Your task to perform on an android device: allow cookies in the chrome app Image 0: 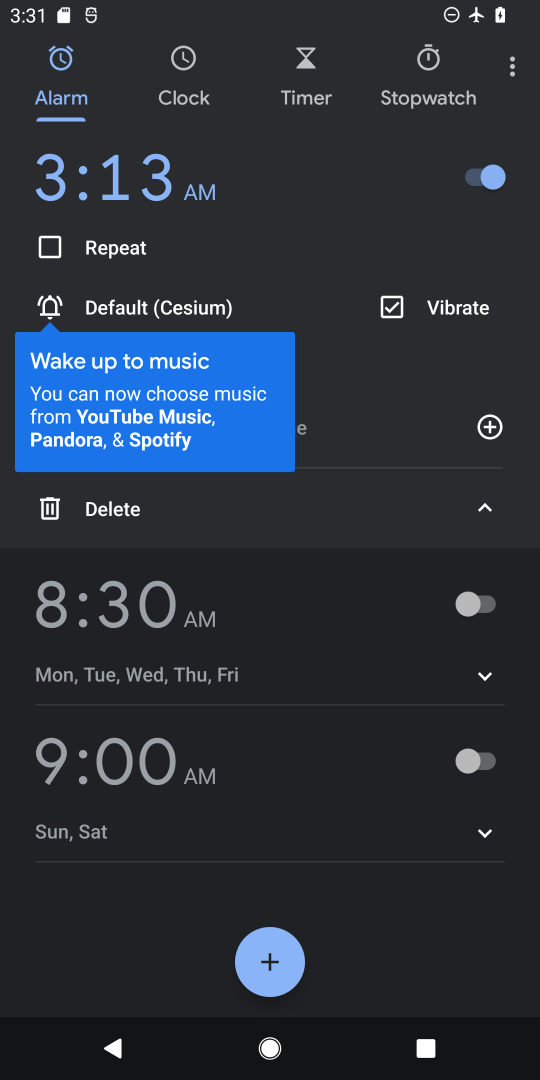
Step 0: press back button
Your task to perform on an android device: allow cookies in the chrome app Image 1: 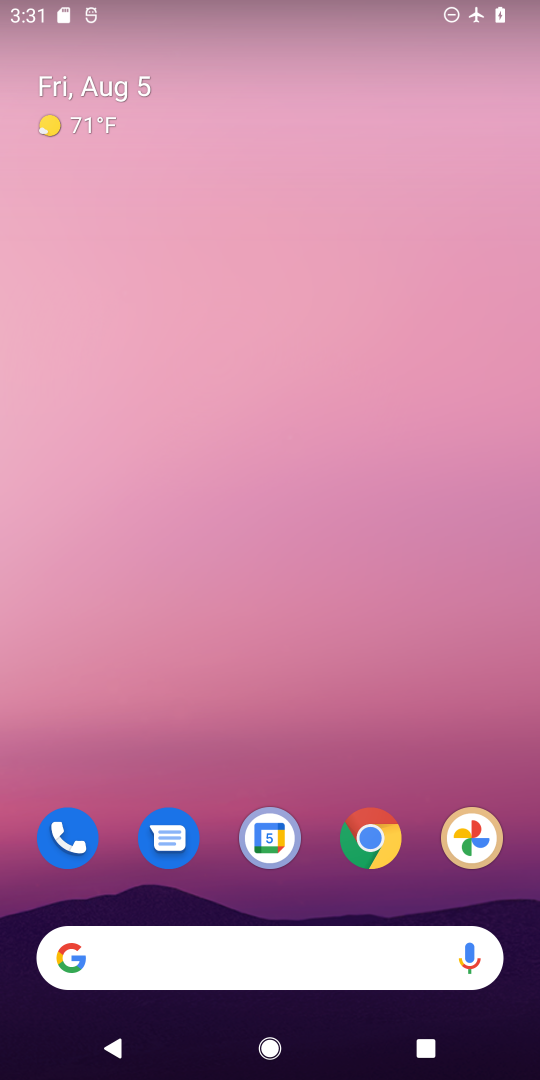
Step 1: click (384, 837)
Your task to perform on an android device: allow cookies in the chrome app Image 2: 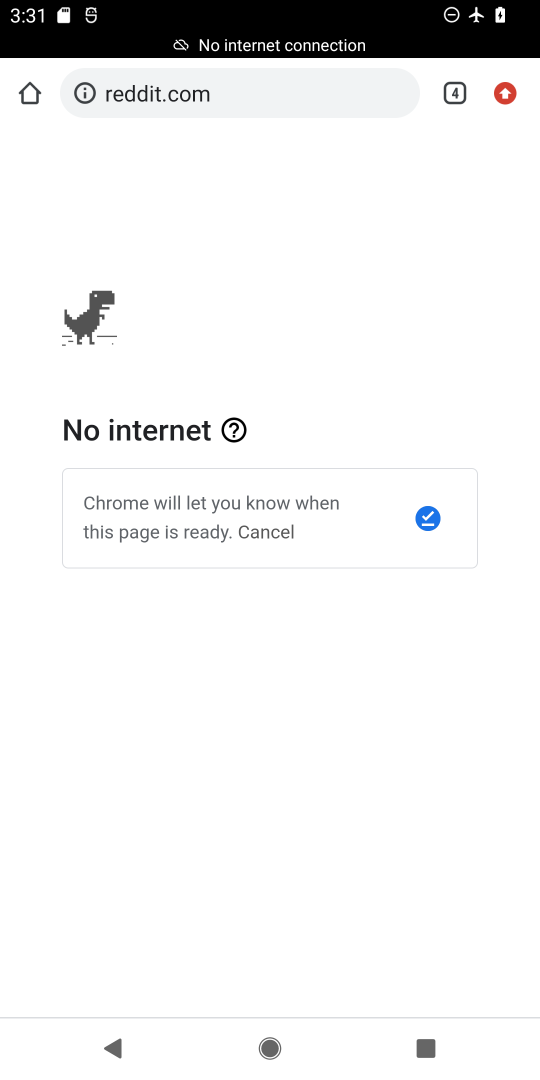
Step 2: click (506, 94)
Your task to perform on an android device: allow cookies in the chrome app Image 3: 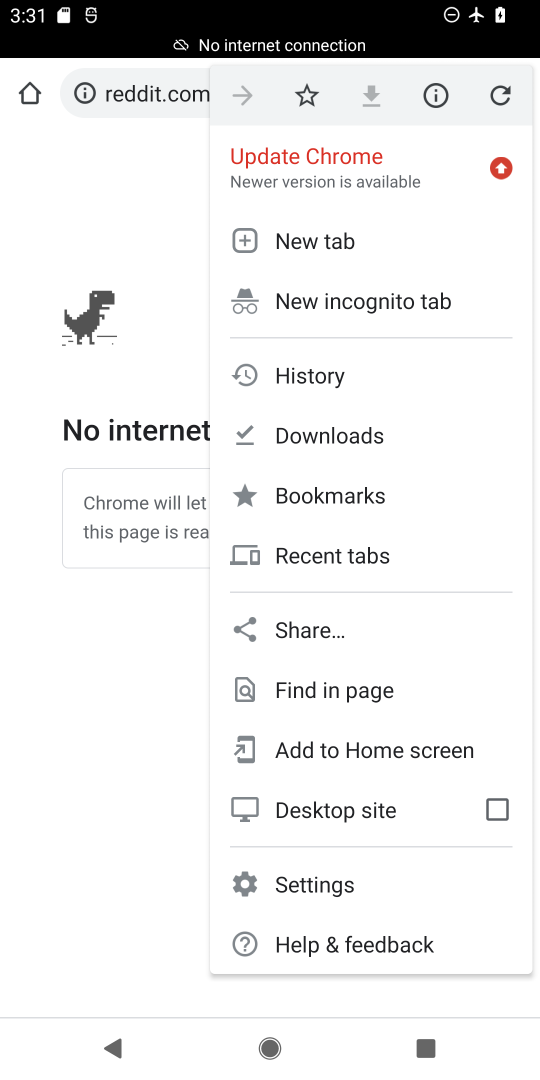
Step 3: click (390, 888)
Your task to perform on an android device: allow cookies in the chrome app Image 4: 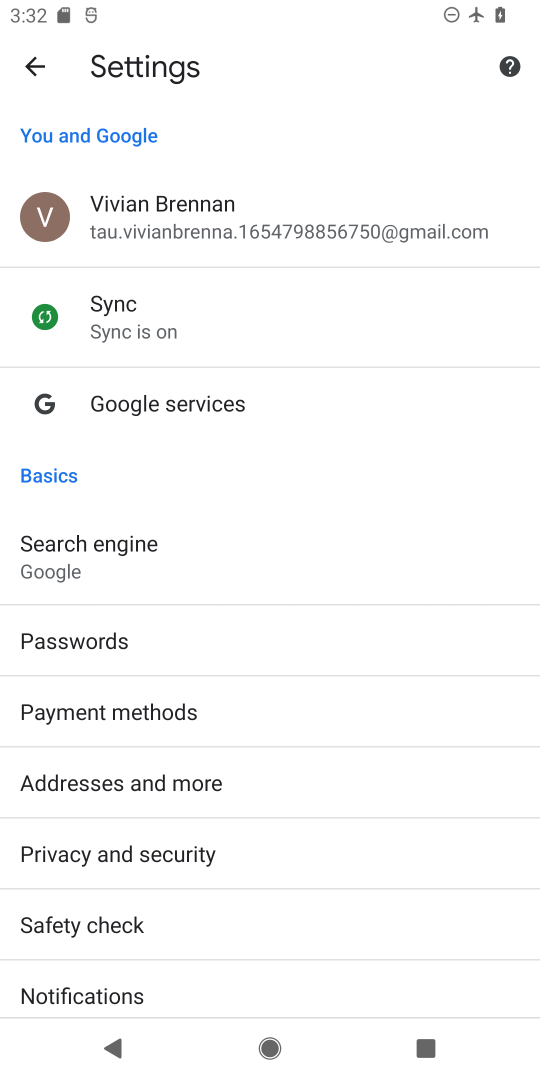
Step 4: drag from (379, 1006) to (315, 206)
Your task to perform on an android device: allow cookies in the chrome app Image 5: 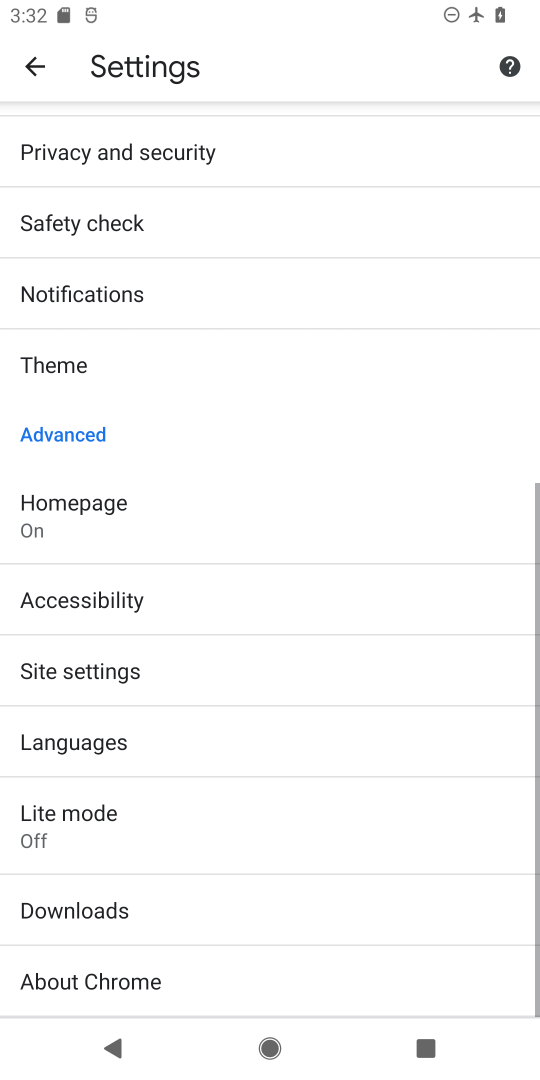
Step 5: click (333, 678)
Your task to perform on an android device: allow cookies in the chrome app Image 6: 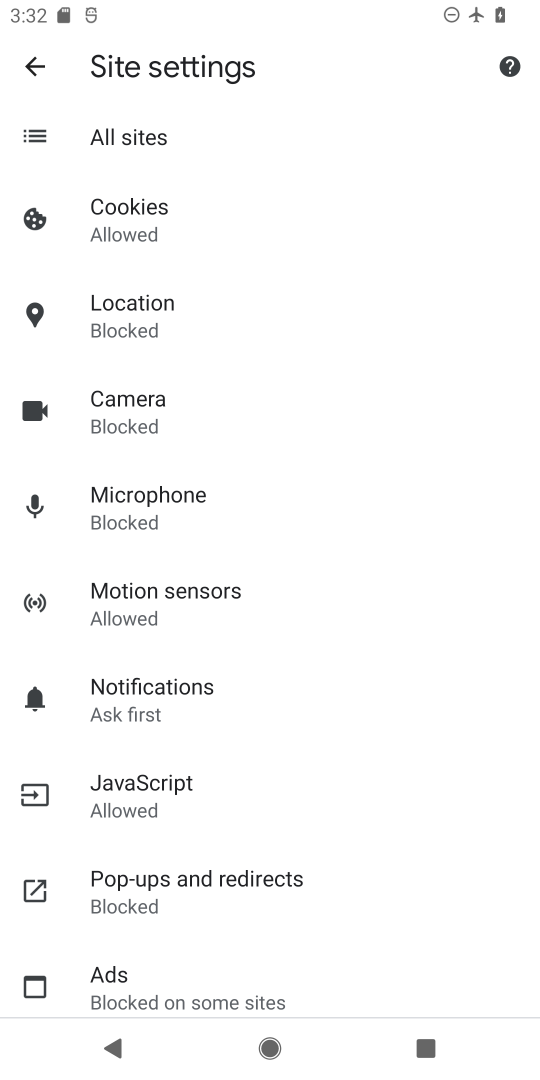
Step 6: click (241, 242)
Your task to perform on an android device: allow cookies in the chrome app Image 7: 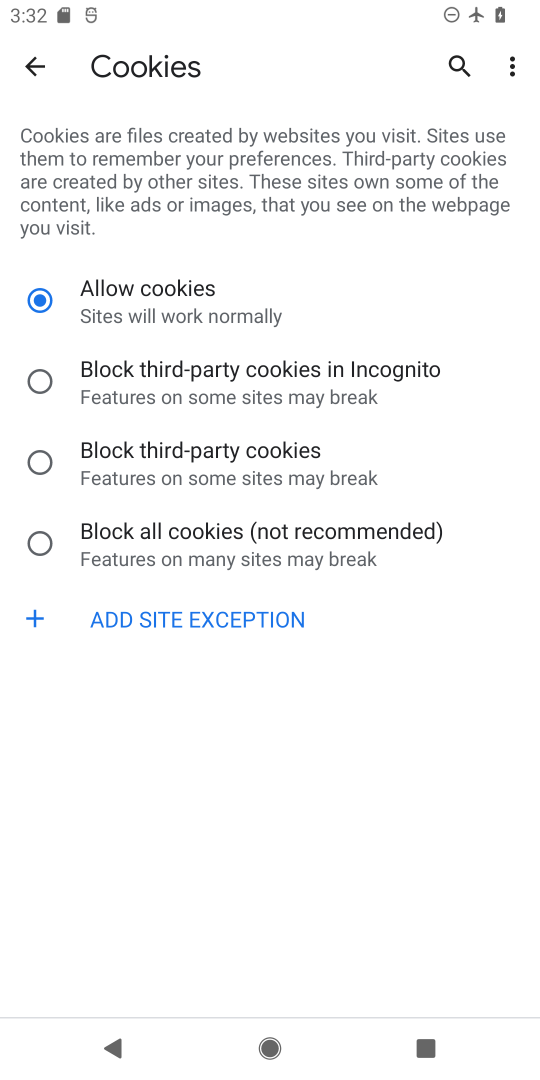
Step 7: task complete